Your task to perform on an android device: Open calendar and show me the first week of next month Image 0: 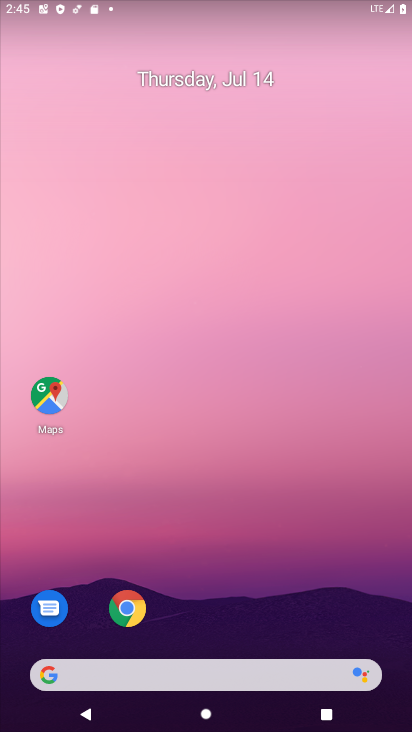
Step 0: drag from (46, 464) to (242, 80)
Your task to perform on an android device: Open calendar and show me the first week of next month Image 1: 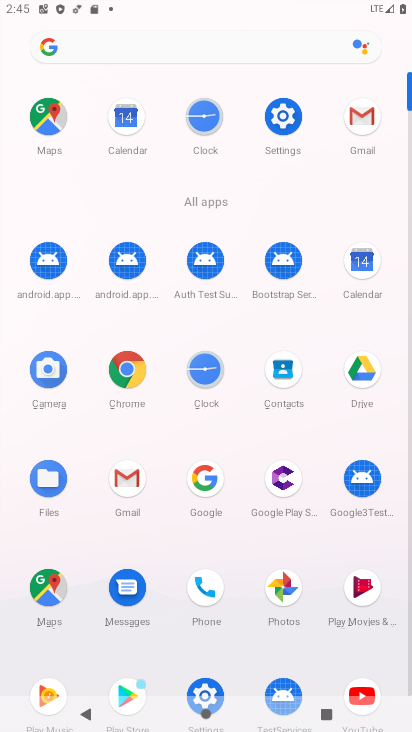
Step 1: click (356, 257)
Your task to perform on an android device: Open calendar and show me the first week of next month Image 2: 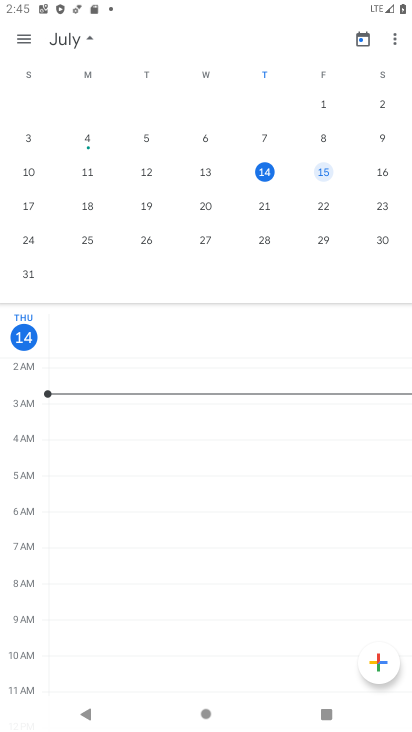
Step 2: task complete